Your task to perform on an android device: When is my next appointment? Image 0: 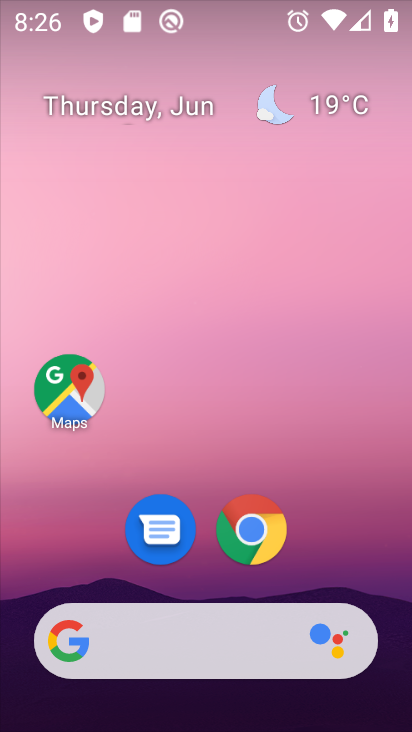
Step 0: drag from (395, 581) to (393, 301)
Your task to perform on an android device: When is my next appointment? Image 1: 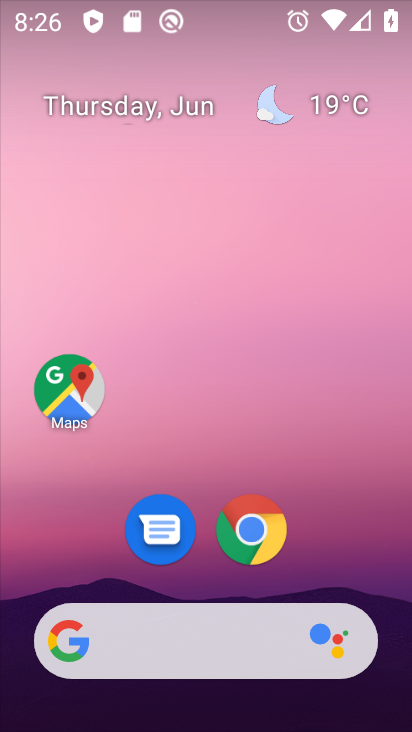
Step 1: drag from (381, 588) to (314, 18)
Your task to perform on an android device: When is my next appointment? Image 2: 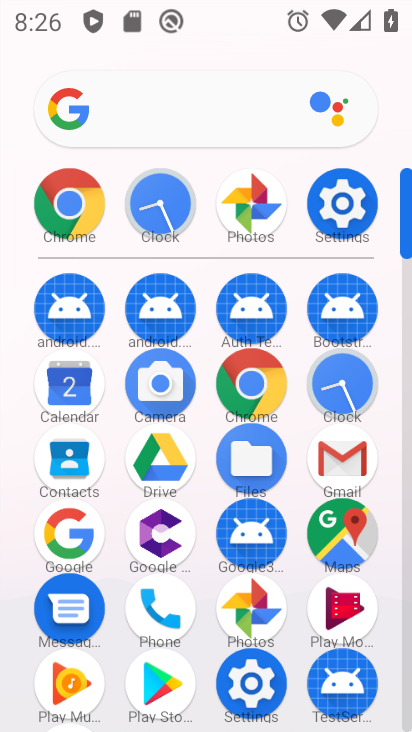
Step 2: click (69, 389)
Your task to perform on an android device: When is my next appointment? Image 3: 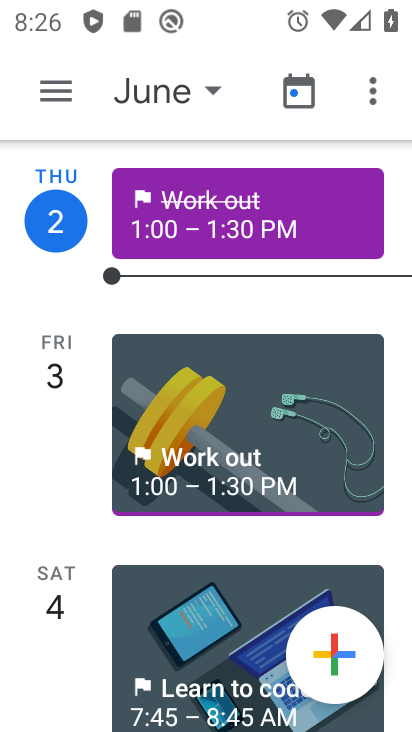
Step 3: click (50, 97)
Your task to perform on an android device: When is my next appointment? Image 4: 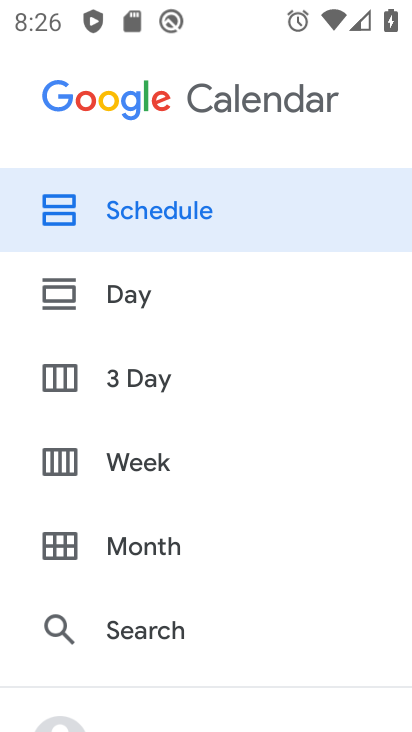
Step 4: click (138, 229)
Your task to perform on an android device: When is my next appointment? Image 5: 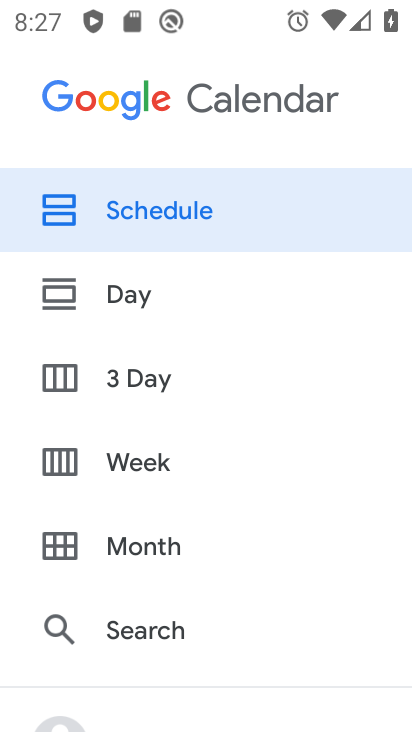
Step 5: click (262, 185)
Your task to perform on an android device: When is my next appointment? Image 6: 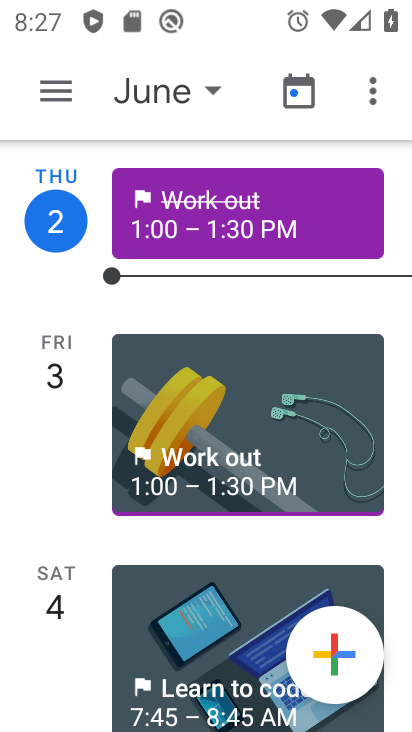
Step 6: task complete